Your task to perform on an android device: What's the weather today? Image 0: 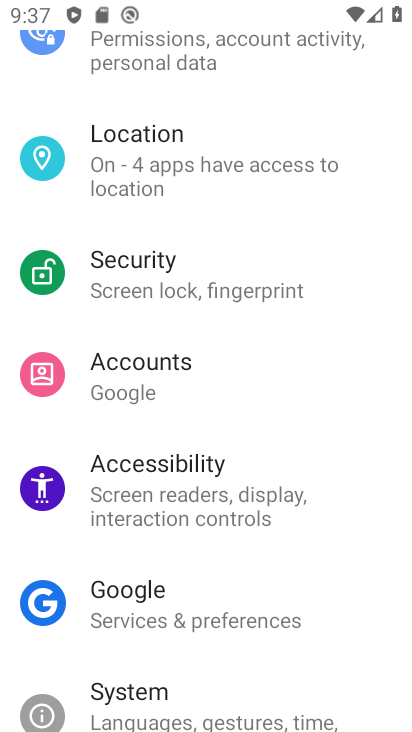
Step 0: press back button
Your task to perform on an android device: What's the weather today? Image 1: 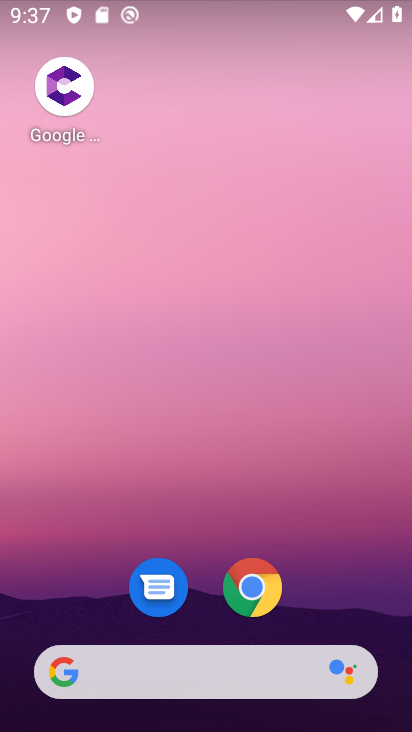
Step 1: drag from (311, 610) to (236, 88)
Your task to perform on an android device: What's the weather today? Image 2: 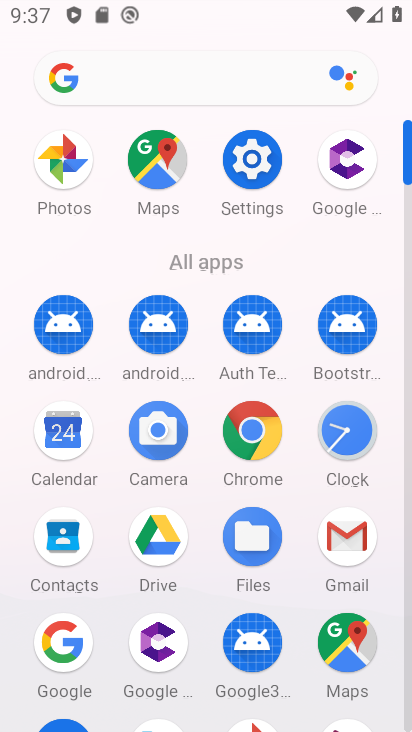
Step 2: press back button
Your task to perform on an android device: What's the weather today? Image 3: 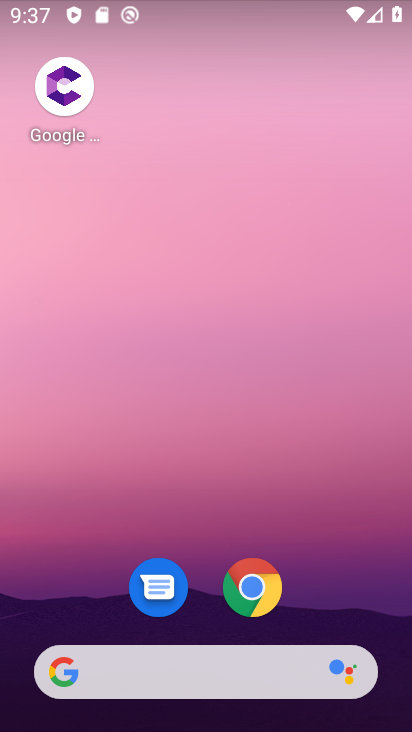
Step 3: drag from (9, 274) to (411, 281)
Your task to perform on an android device: What's the weather today? Image 4: 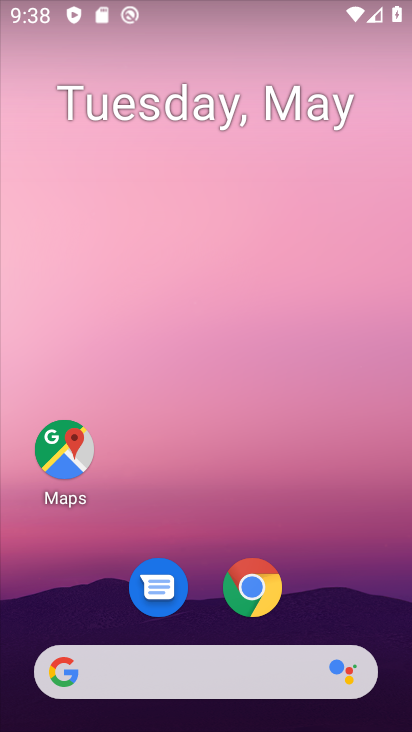
Step 4: drag from (2, 237) to (406, 317)
Your task to perform on an android device: What's the weather today? Image 5: 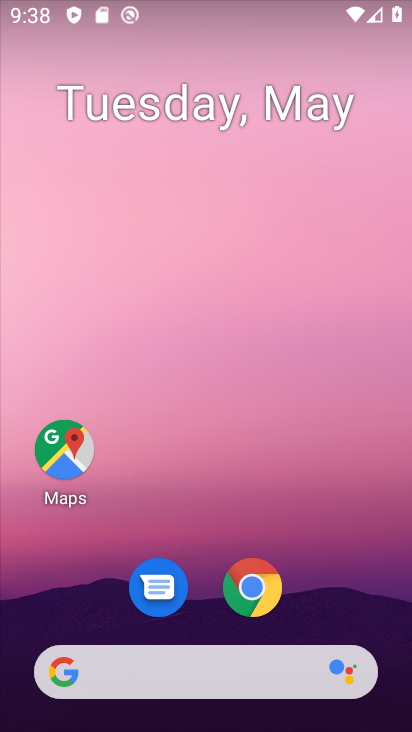
Step 5: click (401, 315)
Your task to perform on an android device: What's the weather today? Image 6: 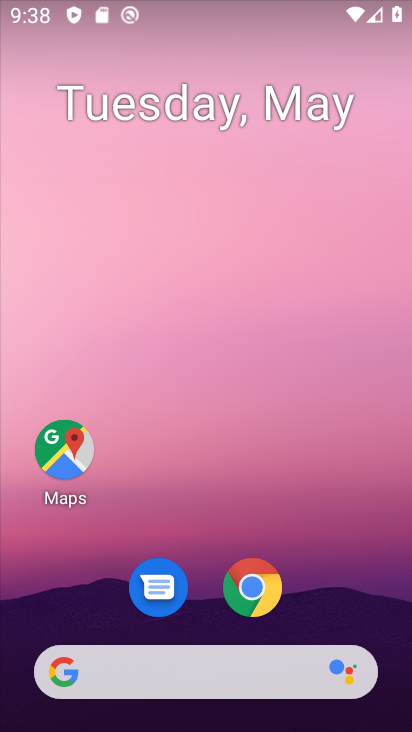
Step 6: drag from (10, 235) to (371, 346)
Your task to perform on an android device: What's the weather today? Image 7: 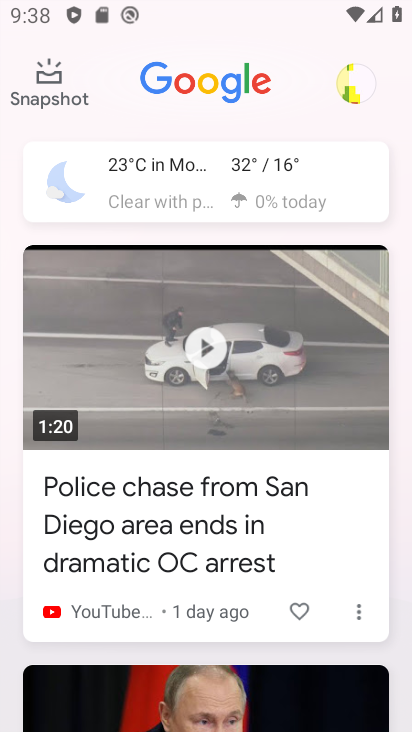
Step 7: click (168, 184)
Your task to perform on an android device: What's the weather today? Image 8: 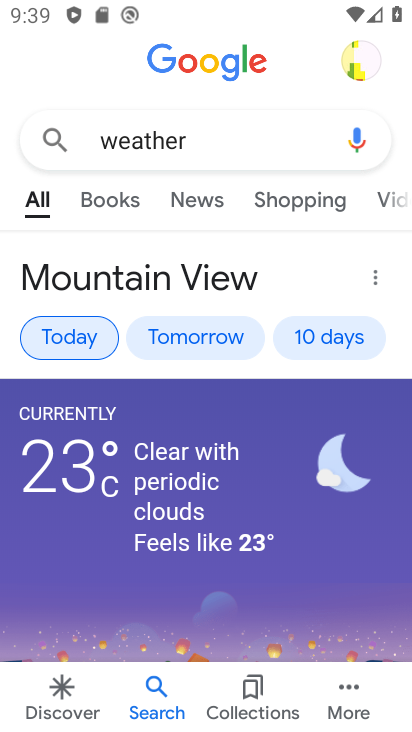
Step 8: task complete